Your task to perform on an android device: remove spam from my inbox in the gmail app Image 0: 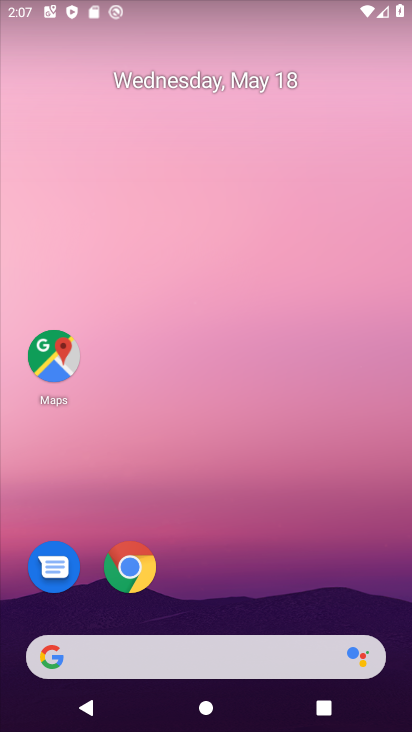
Step 0: drag from (244, 616) to (261, 222)
Your task to perform on an android device: remove spam from my inbox in the gmail app Image 1: 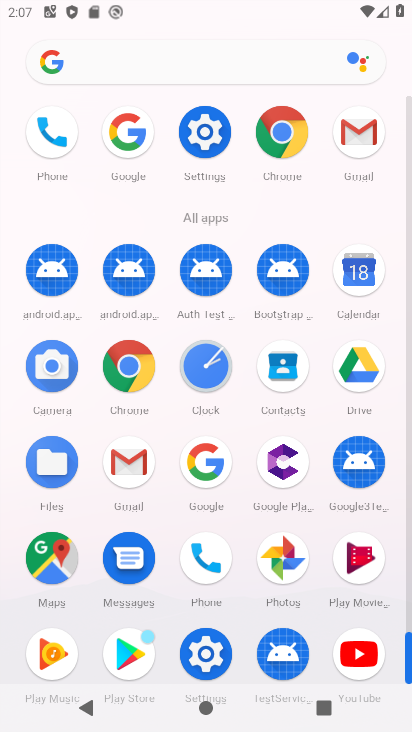
Step 1: click (353, 134)
Your task to perform on an android device: remove spam from my inbox in the gmail app Image 2: 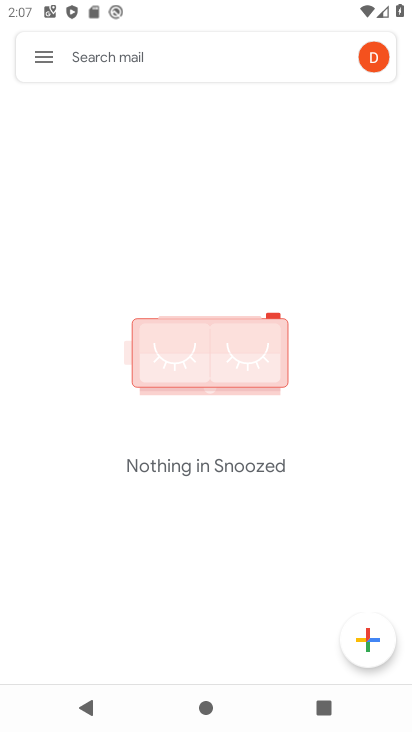
Step 2: click (29, 53)
Your task to perform on an android device: remove spam from my inbox in the gmail app Image 3: 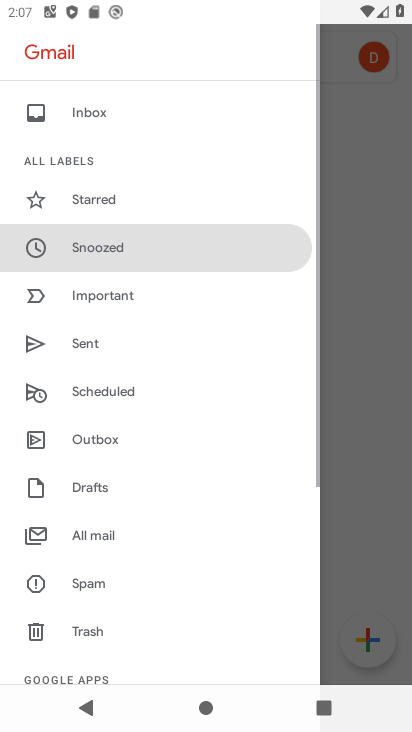
Step 3: click (84, 584)
Your task to perform on an android device: remove spam from my inbox in the gmail app Image 4: 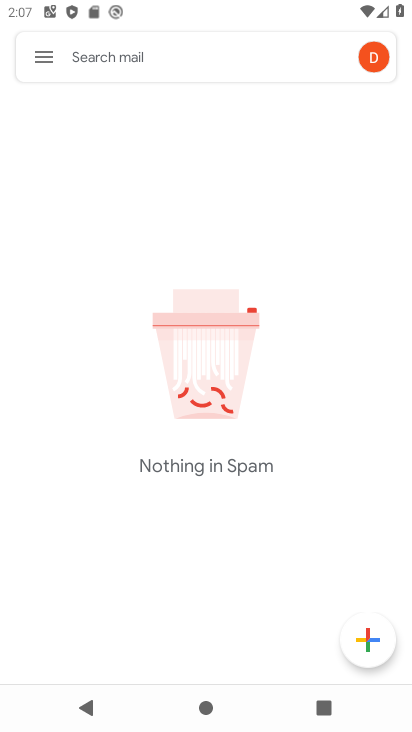
Step 4: task complete